Your task to perform on an android device: turn on sleep mode Image 0: 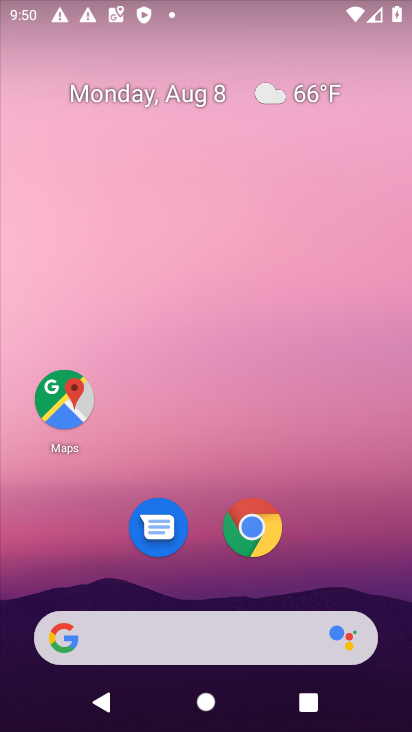
Step 0: click (48, 397)
Your task to perform on an android device: turn on sleep mode Image 1: 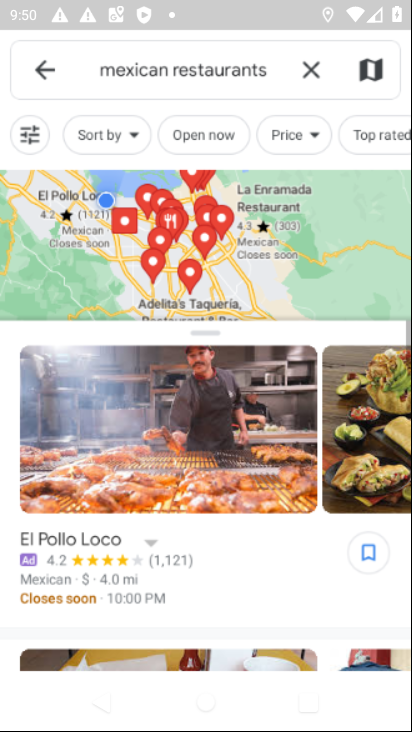
Step 1: press home button
Your task to perform on an android device: turn on sleep mode Image 2: 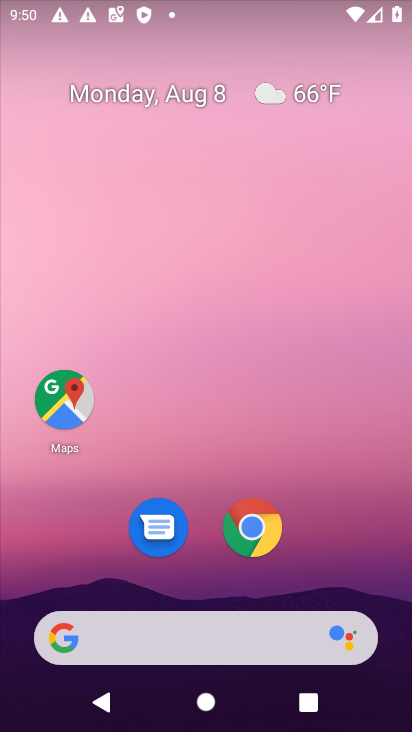
Step 2: drag from (401, 706) to (380, 207)
Your task to perform on an android device: turn on sleep mode Image 3: 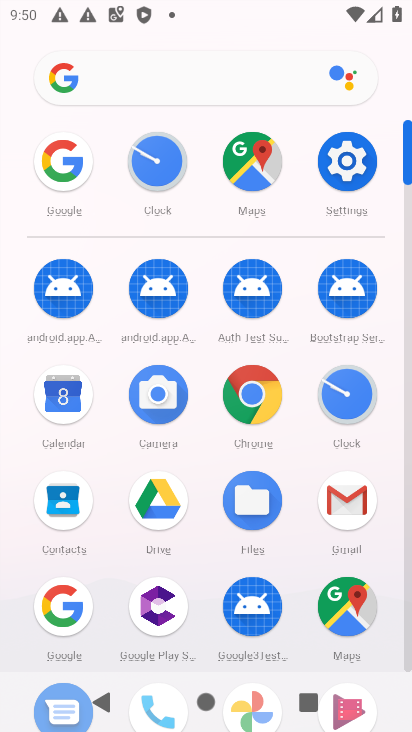
Step 3: click (345, 152)
Your task to perform on an android device: turn on sleep mode Image 4: 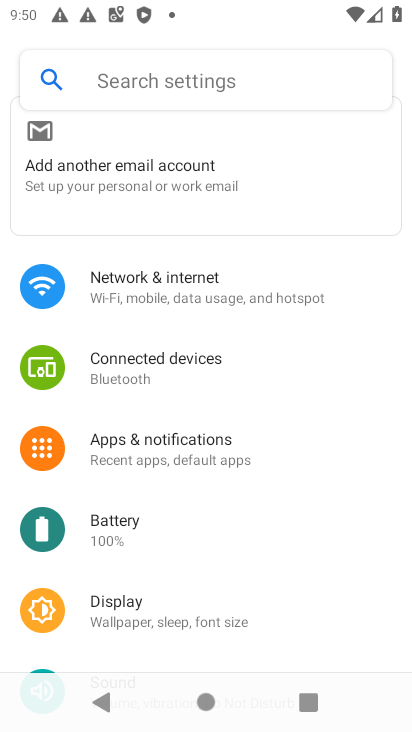
Step 4: drag from (296, 637) to (304, 243)
Your task to perform on an android device: turn on sleep mode Image 5: 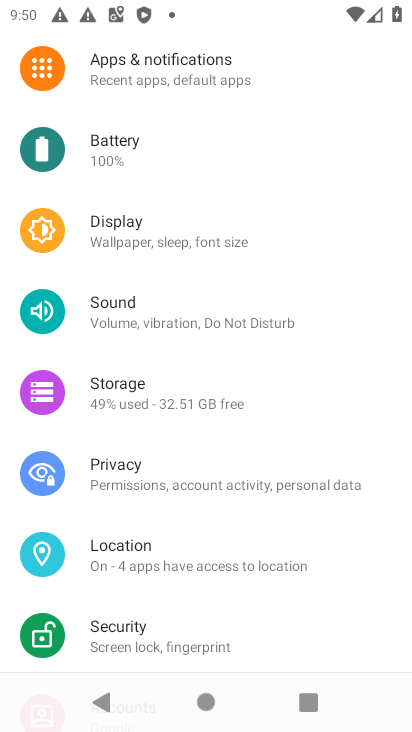
Step 5: drag from (279, 606) to (302, 240)
Your task to perform on an android device: turn on sleep mode Image 6: 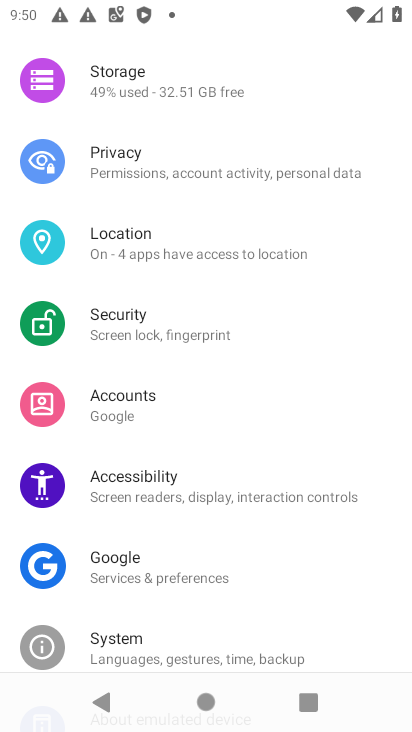
Step 6: drag from (204, 140) to (207, 520)
Your task to perform on an android device: turn on sleep mode Image 7: 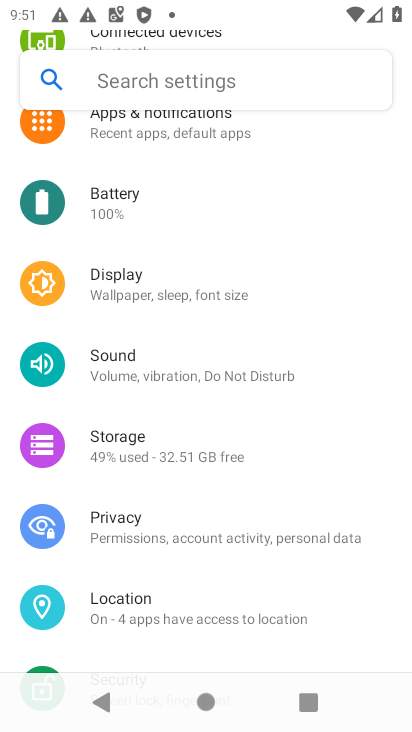
Step 7: click (116, 279)
Your task to perform on an android device: turn on sleep mode Image 8: 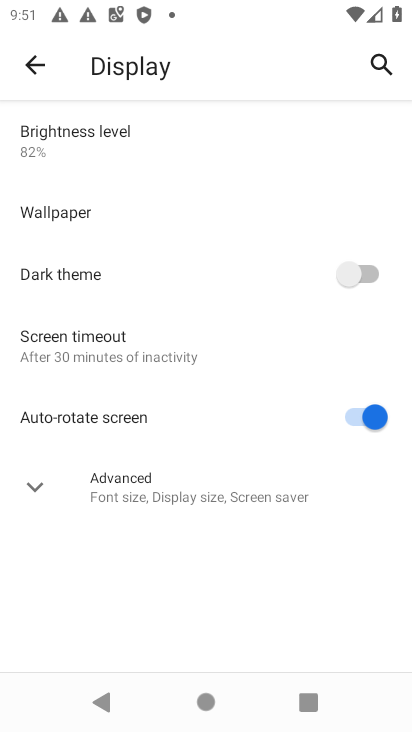
Step 8: click (85, 335)
Your task to perform on an android device: turn on sleep mode Image 9: 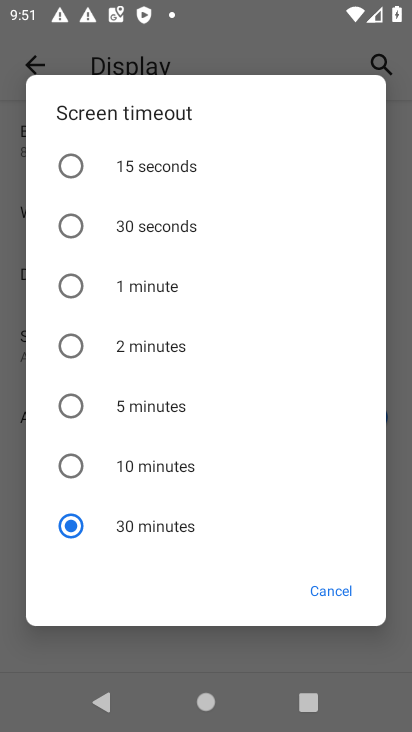
Step 9: task complete